Your task to perform on an android device: When is my next meeting? Image 0: 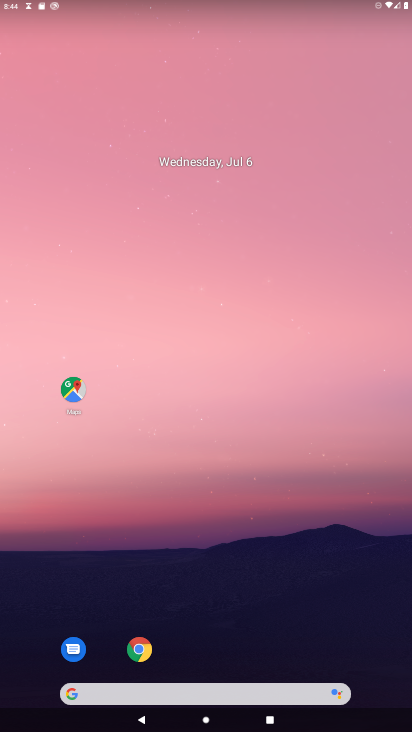
Step 0: drag from (288, 714) to (262, 63)
Your task to perform on an android device: When is my next meeting? Image 1: 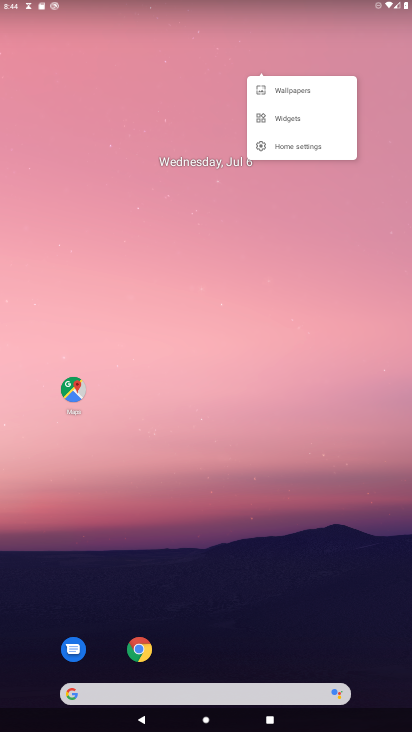
Step 1: drag from (239, 672) to (160, 47)
Your task to perform on an android device: When is my next meeting? Image 2: 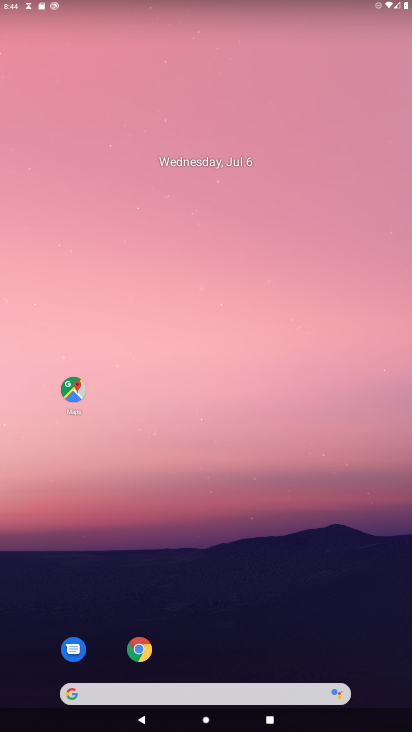
Step 2: drag from (237, 506) to (129, 18)
Your task to perform on an android device: When is my next meeting? Image 3: 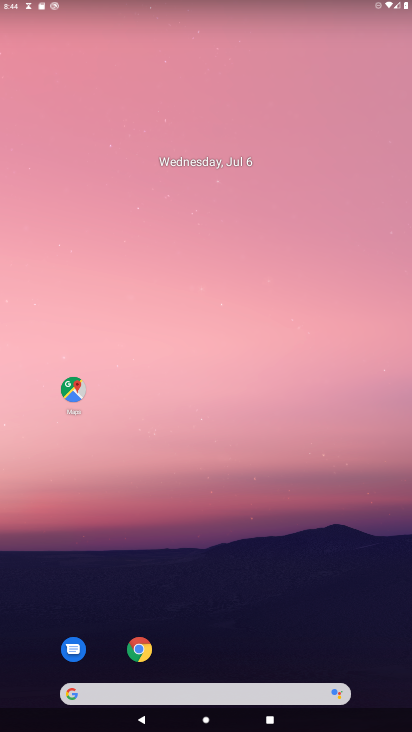
Step 3: drag from (165, 502) to (88, 61)
Your task to perform on an android device: When is my next meeting? Image 4: 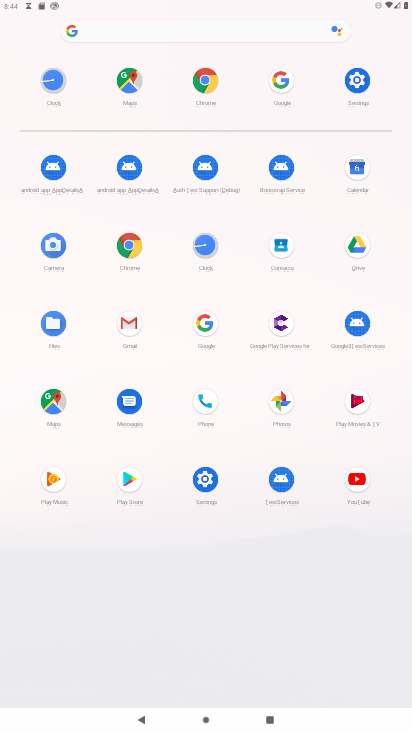
Step 4: drag from (136, 594) to (106, 164)
Your task to perform on an android device: When is my next meeting? Image 5: 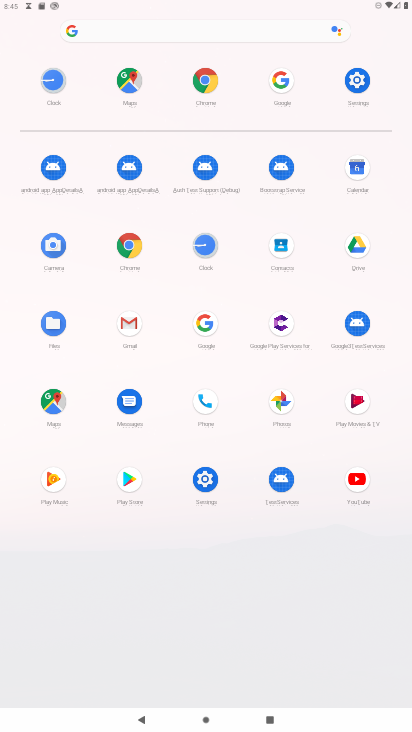
Step 5: click (356, 176)
Your task to perform on an android device: When is my next meeting? Image 6: 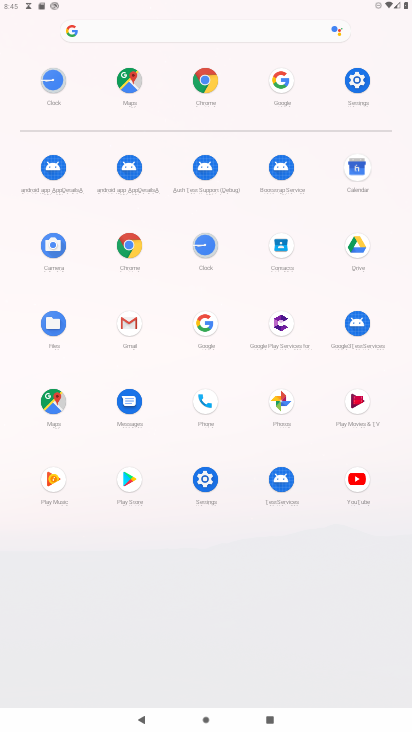
Step 6: click (359, 176)
Your task to perform on an android device: When is my next meeting? Image 7: 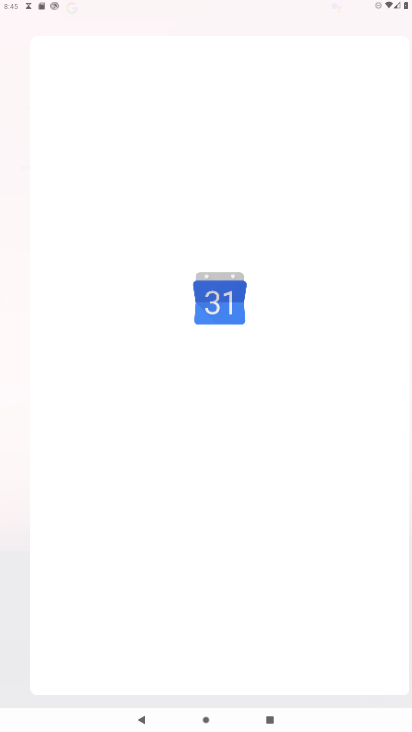
Step 7: click (364, 168)
Your task to perform on an android device: When is my next meeting? Image 8: 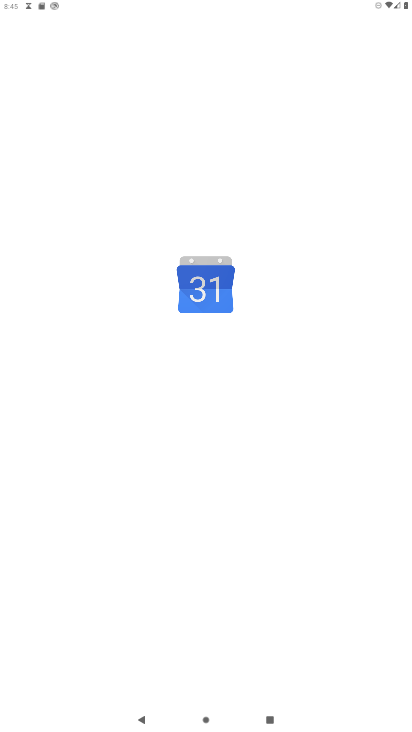
Step 8: click (364, 168)
Your task to perform on an android device: When is my next meeting? Image 9: 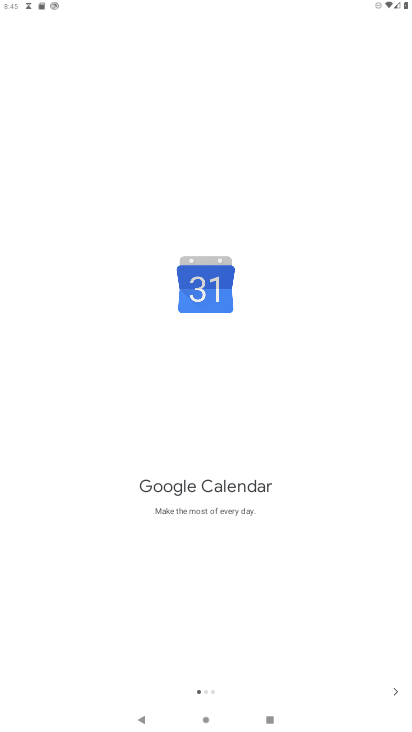
Step 9: click (394, 691)
Your task to perform on an android device: When is my next meeting? Image 10: 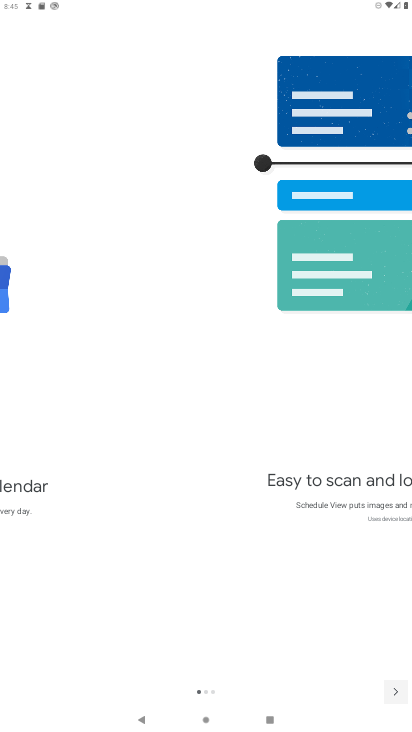
Step 10: click (394, 689)
Your task to perform on an android device: When is my next meeting? Image 11: 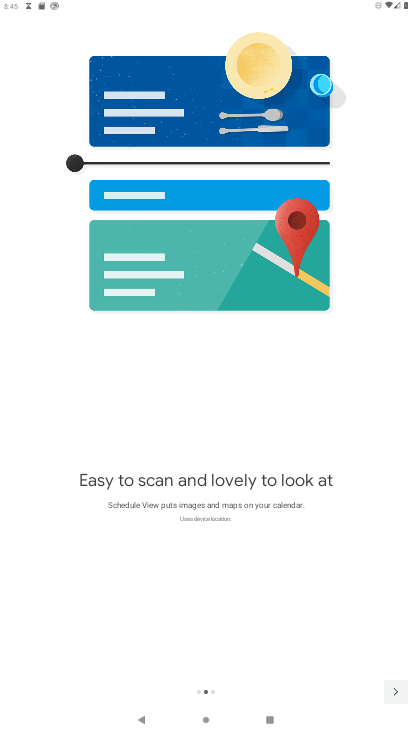
Step 11: click (398, 690)
Your task to perform on an android device: When is my next meeting? Image 12: 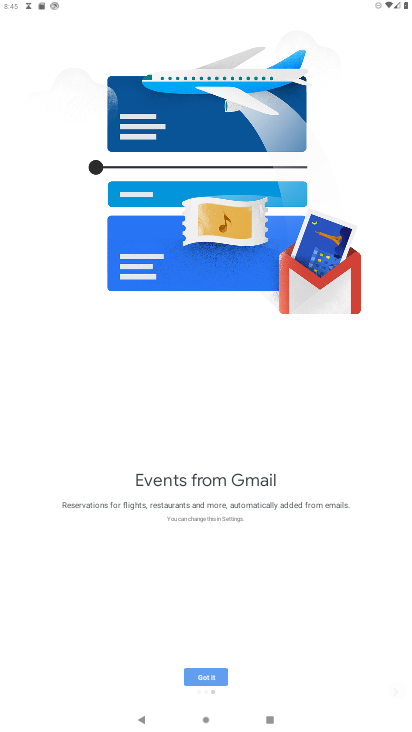
Step 12: click (400, 692)
Your task to perform on an android device: When is my next meeting? Image 13: 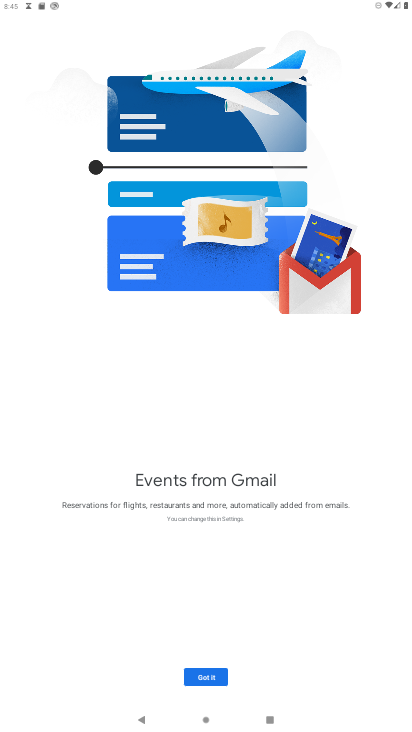
Step 13: click (400, 692)
Your task to perform on an android device: When is my next meeting? Image 14: 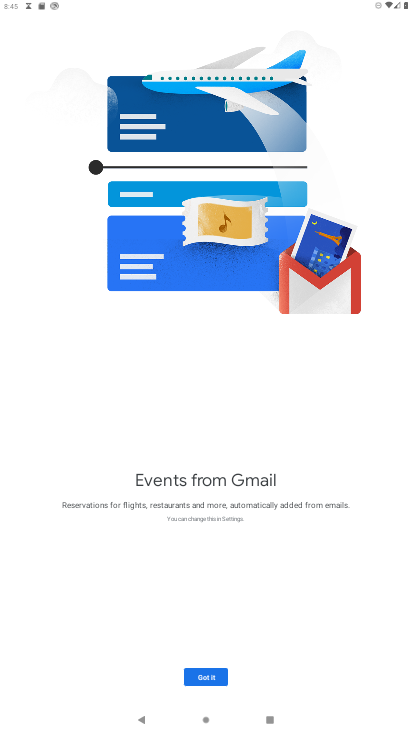
Step 14: click (400, 693)
Your task to perform on an android device: When is my next meeting? Image 15: 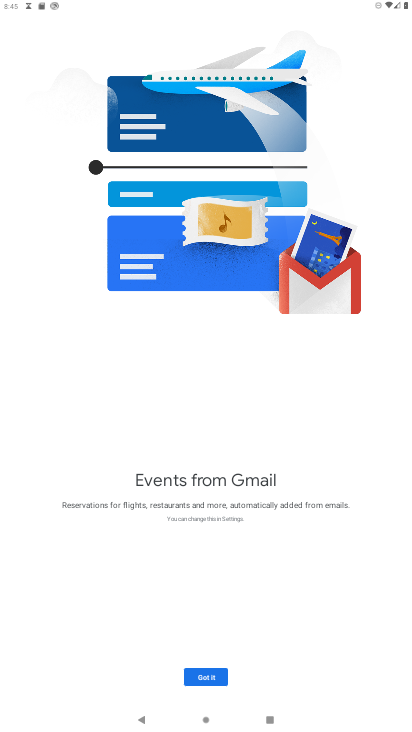
Step 15: click (222, 672)
Your task to perform on an android device: When is my next meeting? Image 16: 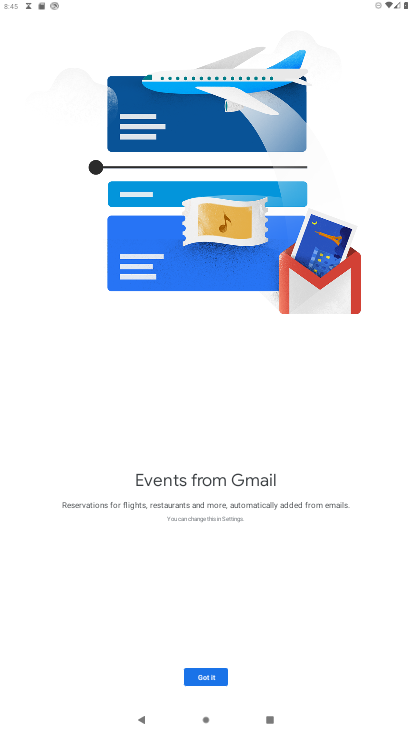
Step 16: click (222, 673)
Your task to perform on an android device: When is my next meeting? Image 17: 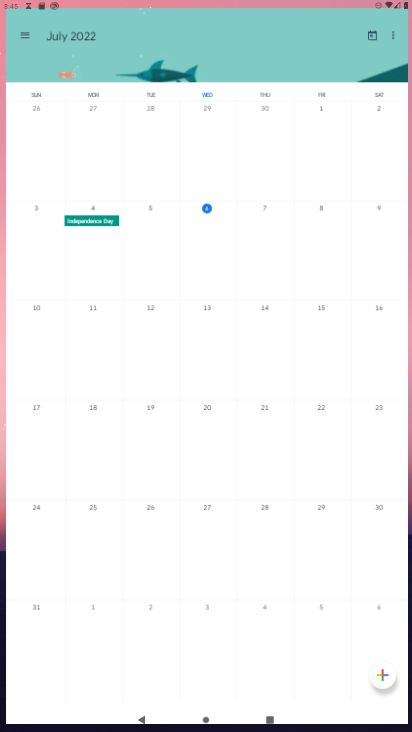
Step 17: click (219, 667)
Your task to perform on an android device: When is my next meeting? Image 18: 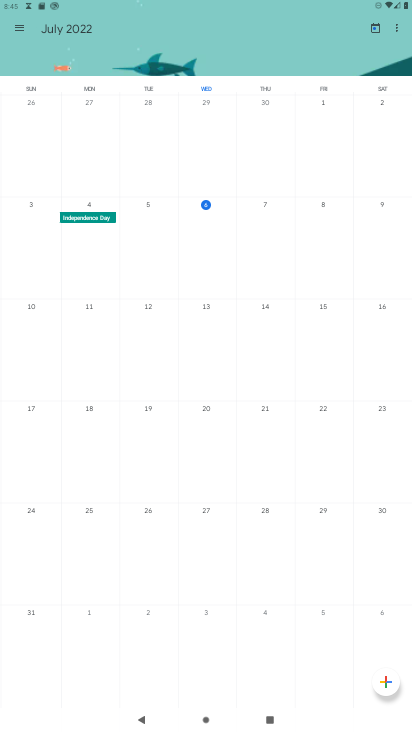
Step 18: click (218, 664)
Your task to perform on an android device: When is my next meeting? Image 19: 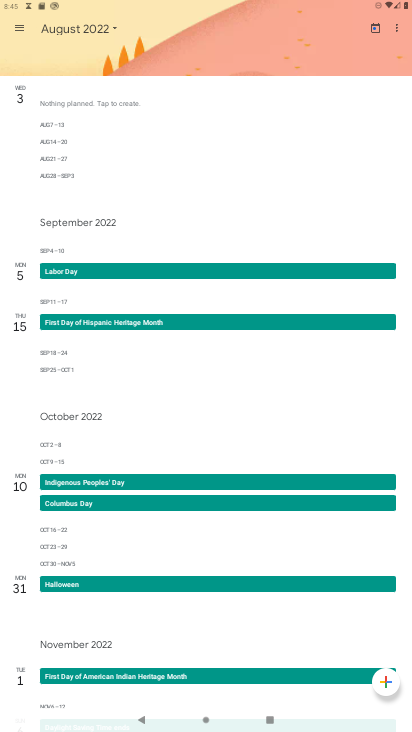
Step 19: click (19, 31)
Your task to perform on an android device: When is my next meeting? Image 20: 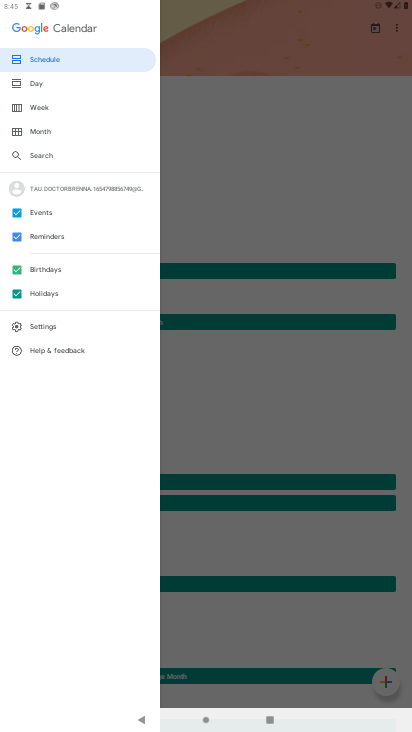
Step 20: click (52, 60)
Your task to perform on an android device: When is my next meeting? Image 21: 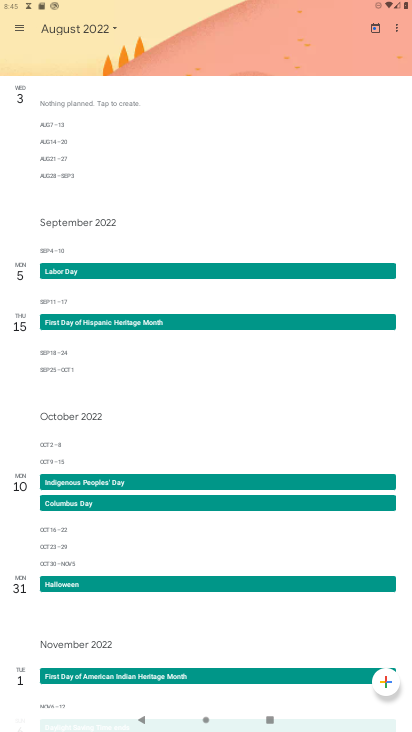
Step 21: drag from (67, 106) to (110, 387)
Your task to perform on an android device: When is my next meeting? Image 22: 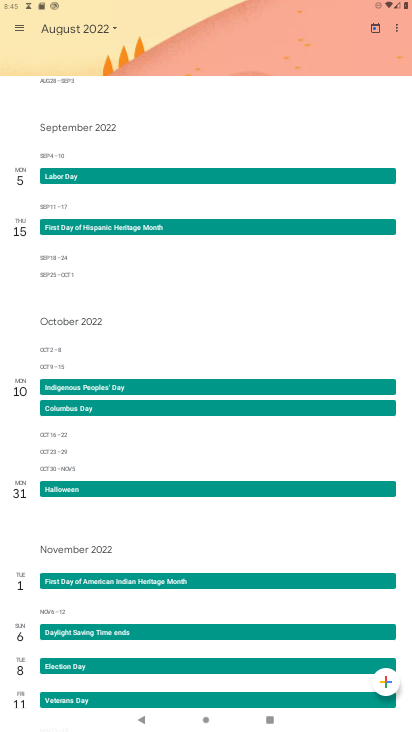
Step 22: drag from (93, 467) to (52, 507)
Your task to perform on an android device: When is my next meeting? Image 23: 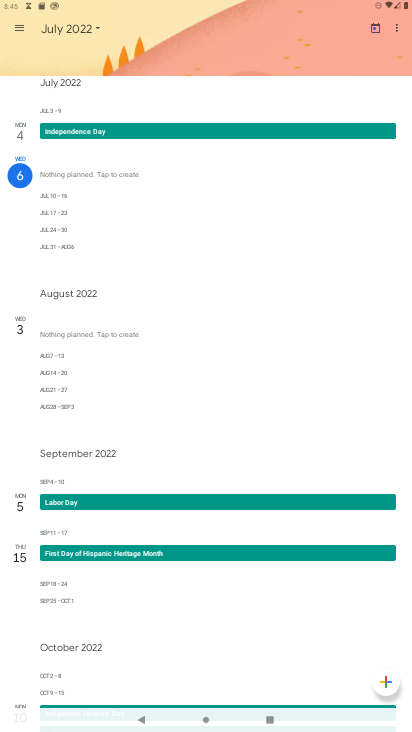
Step 23: click (88, 455)
Your task to perform on an android device: When is my next meeting? Image 24: 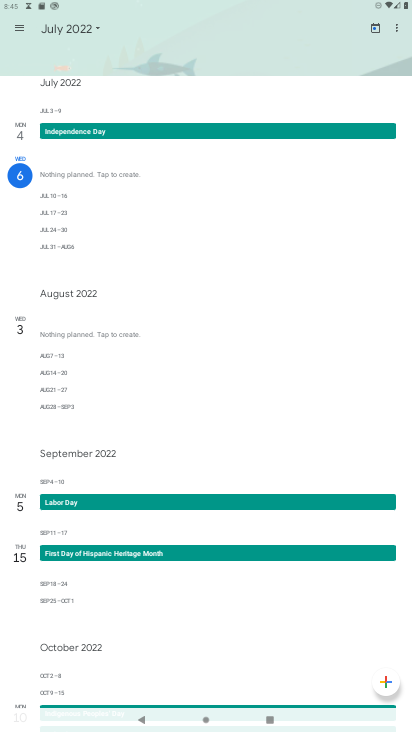
Step 24: drag from (88, 125) to (115, 493)
Your task to perform on an android device: When is my next meeting? Image 25: 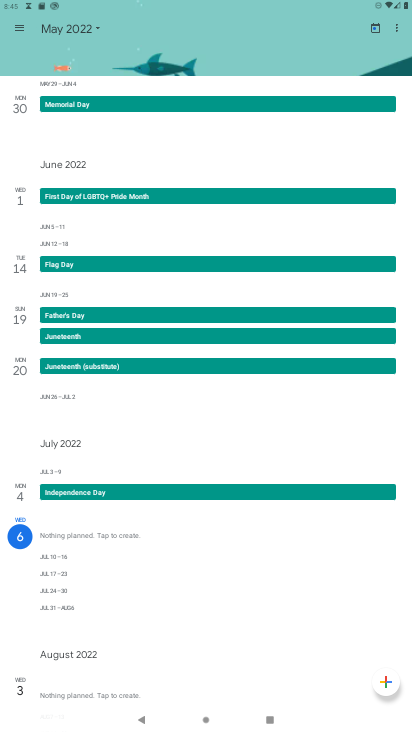
Step 25: drag from (82, 272) to (64, 66)
Your task to perform on an android device: When is my next meeting? Image 26: 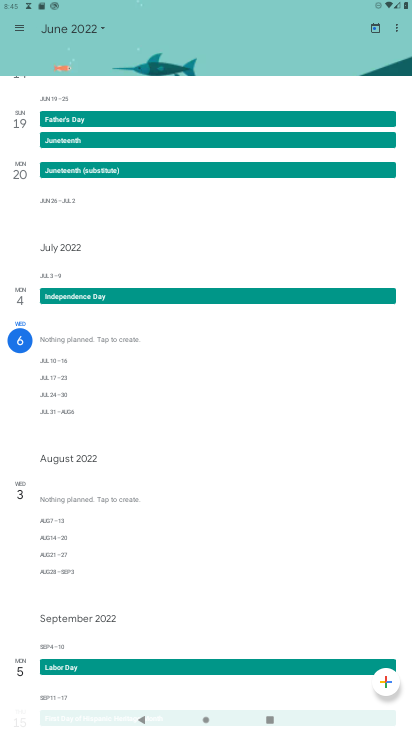
Step 26: click (99, 32)
Your task to perform on an android device: When is my next meeting? Image 27: 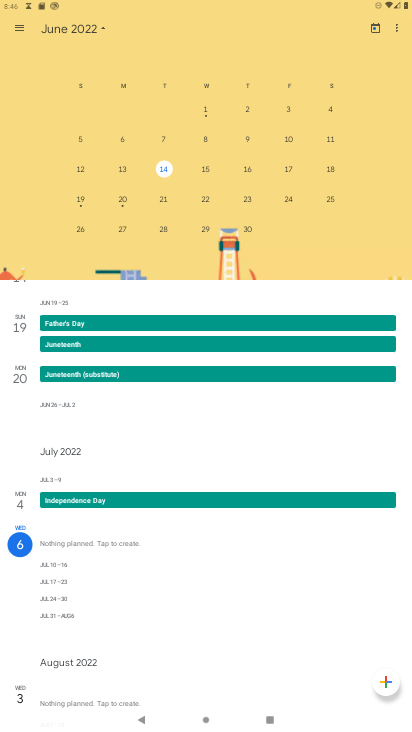
Step 27: drag from (282, 180) to (21, 129)
Your task to perform on an android device: When is my next meeting? Image 28: 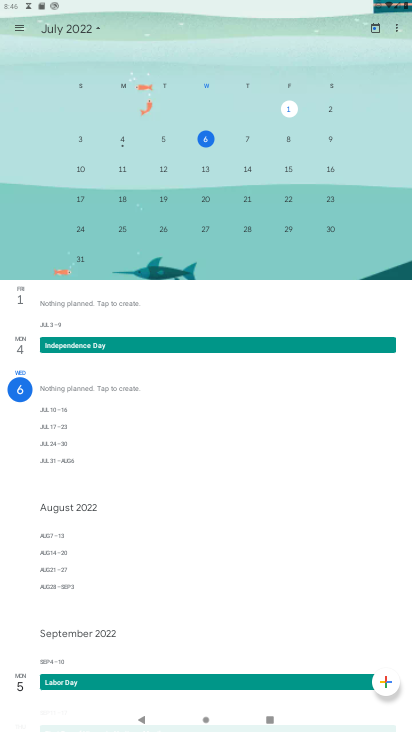
Step 28: click (20, 26)
Your task to perform on an android device: When is my next meeting? Image 29: 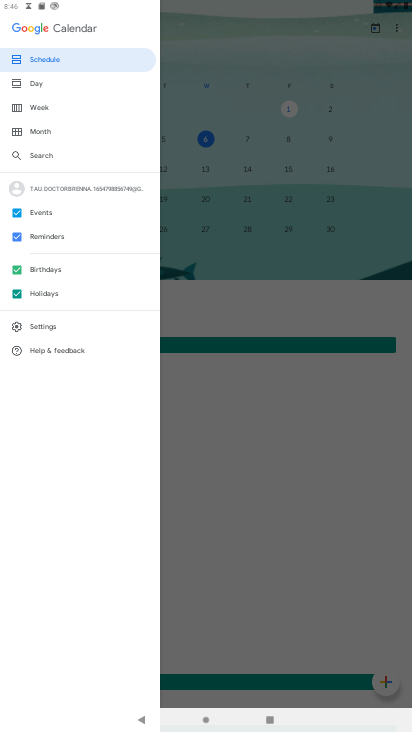
Step 29: click (207, 241)
Your task to perform on an android device: When is my next meeting? Image 30: 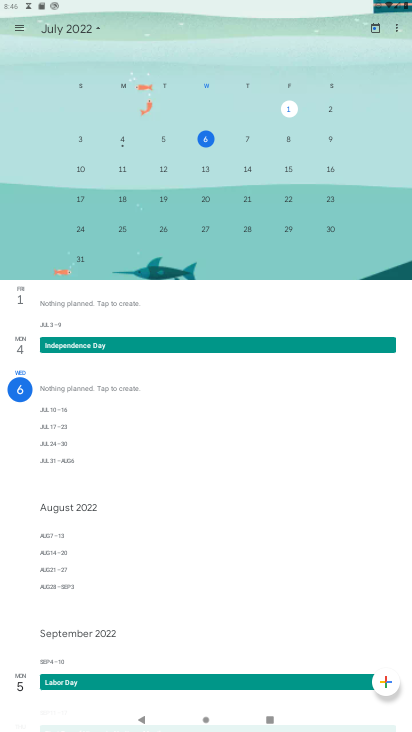
Step 30: task complete